Your task to perform on an android device: Open notification settings Image 0: 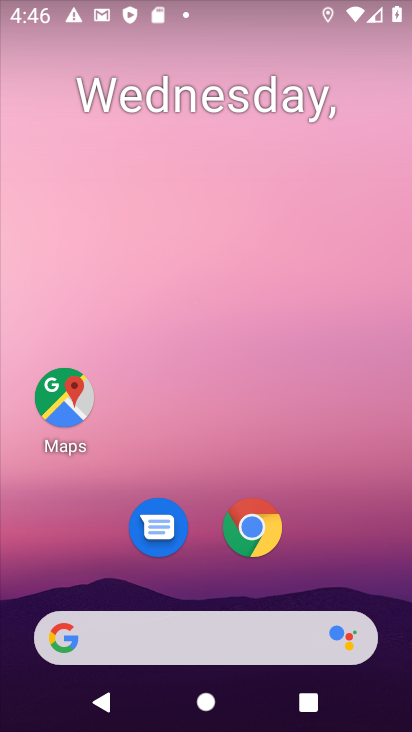
Step 0: drag from (152, 515) to (152, 333)
Your task to perform on an android device: Open notification settings Image 1: 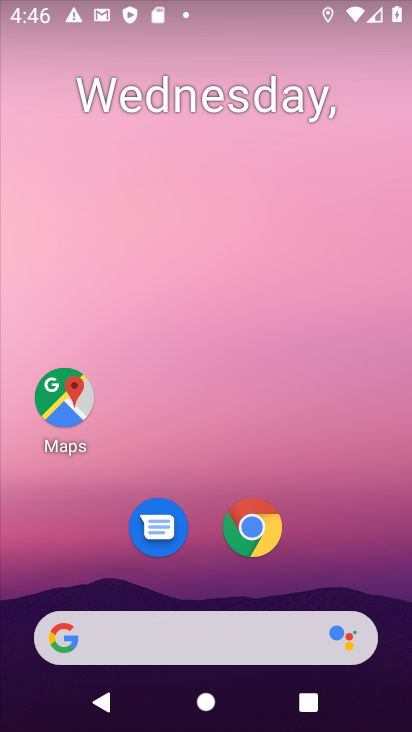
Step 1: drag from (255, 622) to (249, 324)
Your task to perform on an android device: Open notification settings Image 2: 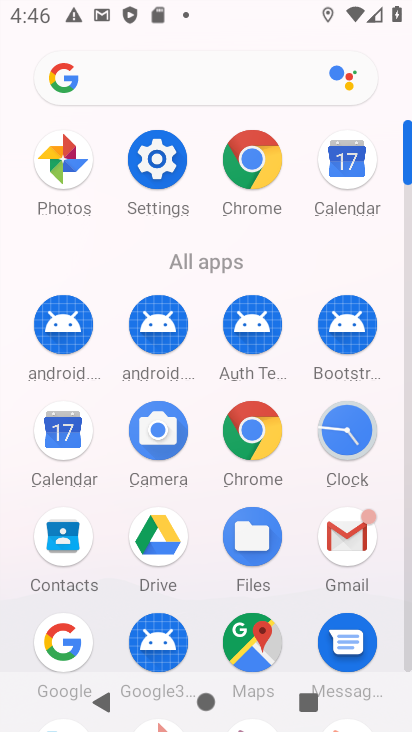
Step 2: click (163, 166)
Your task to perform on an android device: Open notification settings Image 3: 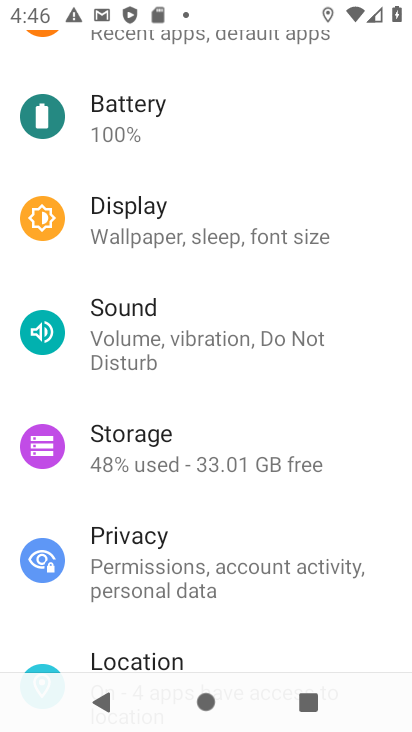
Step 3: drag from (191, 123) to (188, 542)
Your task to perform on an android device: Open notification settings Image 4: 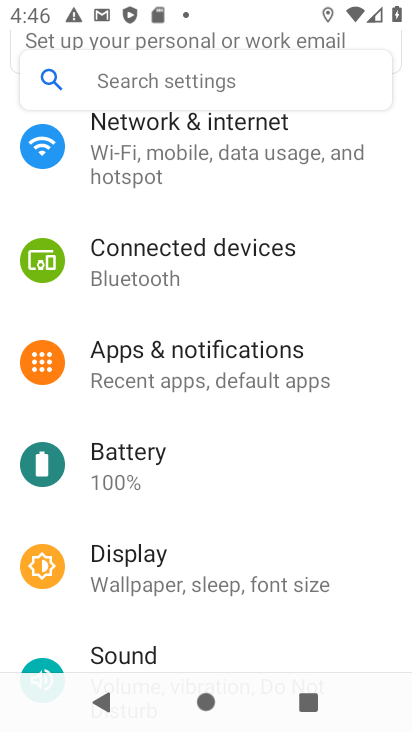
Step 4: click (175, 355)
Your task to perform on an android device: Open notification settings Image 5: 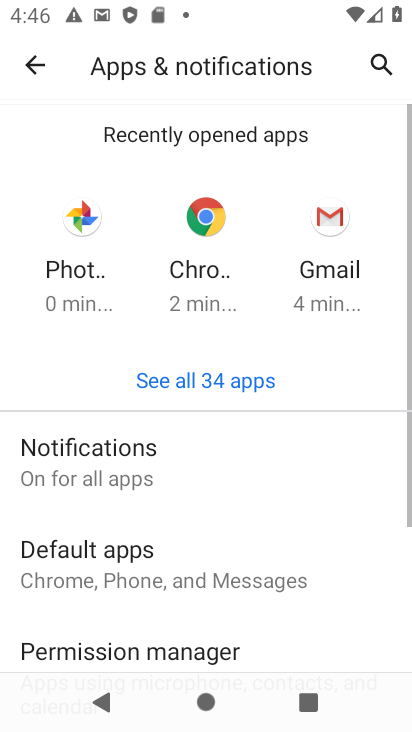
Step 5: drag from (146, 585) to (138, 334)
Your task to perform on an android device: Open notification settings Image 6: 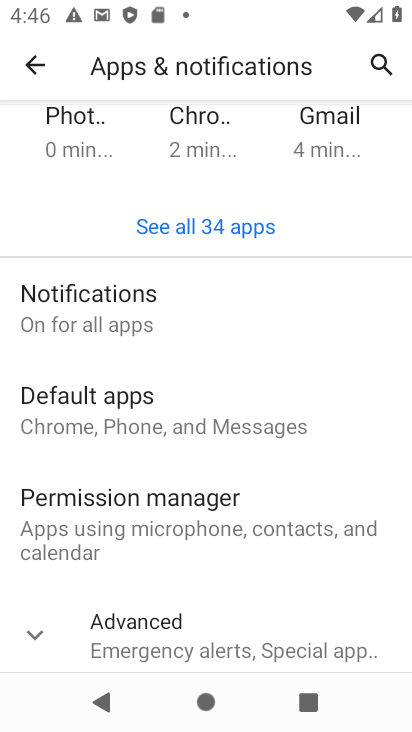
Step 6: click (120, 640)
Your task to perform on an android device: Open notification settings Image 7: 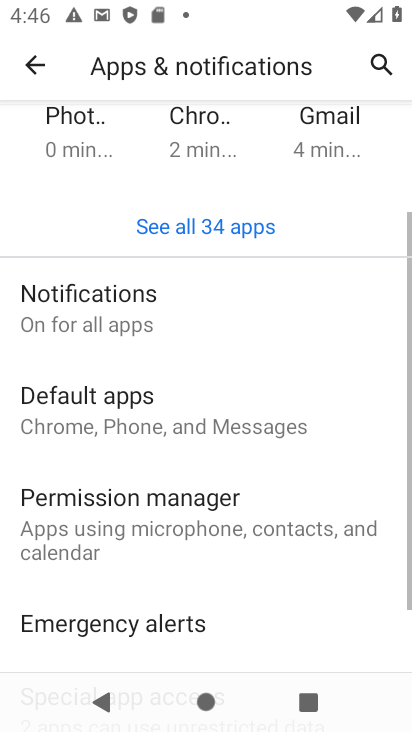
Step 7: task complete